Your task to perform on an android device: Open the calendar app, open the side menu, and click the "Day" option Image 0: 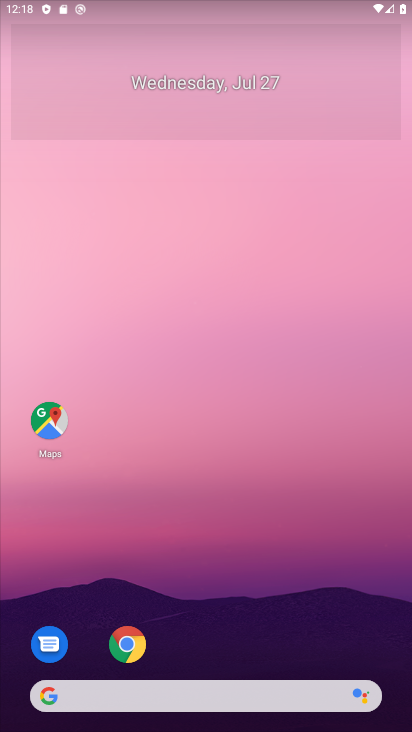
Step 0: drag from (204, 604) to (260, 205)
Your task to perform on an android device: Open the calendar app, open the side menu, and click the "Day" option Image 1: 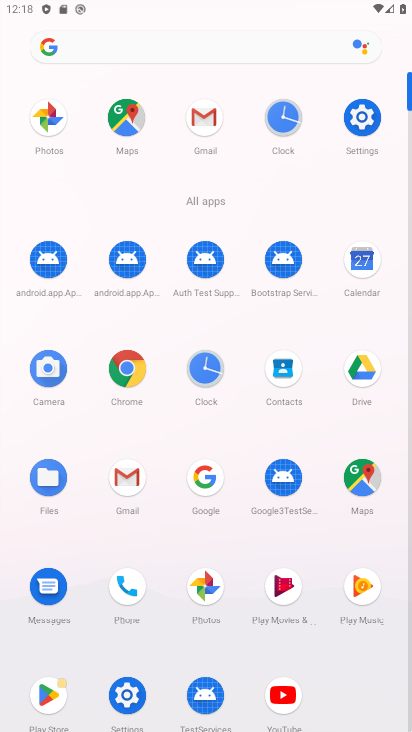
Step 1: click (374, 260)
Your task to perform on an android device: Open the calendar app, open the side menu, and click the "Day" option Image 2: 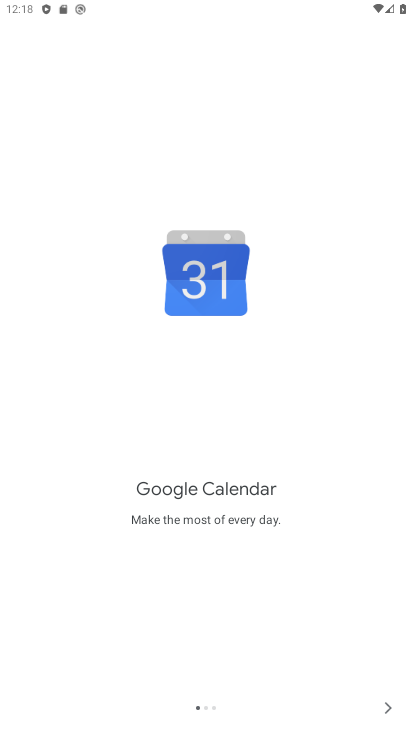
Step 2: click (388, 702)
Your task to perform on an android device: Open the calendar app, open the side menu, and click the "Day" option Image 3: 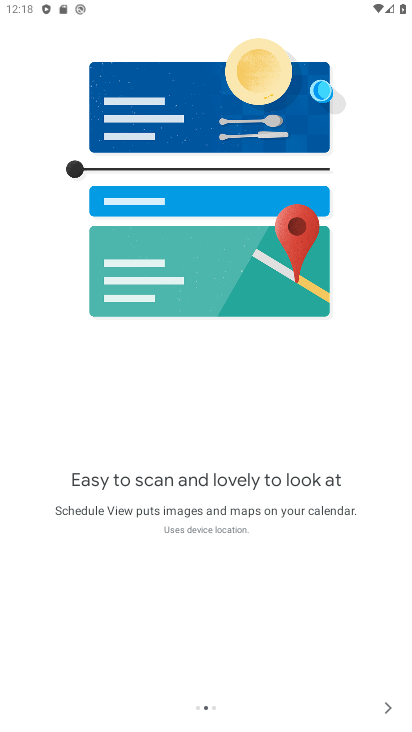
Step 3: click (387, 705)
Your task to perform on an android device: Open the calendar app, open the side menu, and click the "Day" option Image 4: 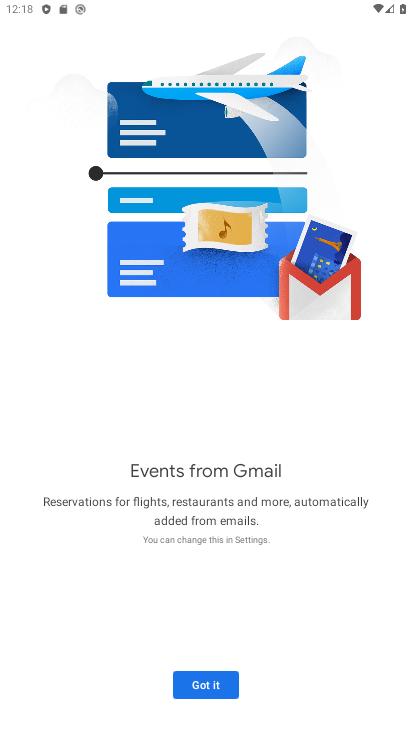
Step 4: click (199, 685)
Your task to perform on an android device: Open the calendar app, open the side menu, and click the "Day" option Image 5: 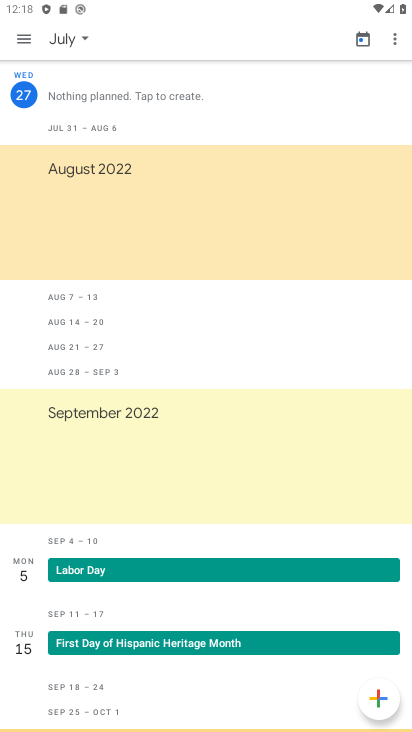
Step 5: click (35, 39)
Your task to perform on an android device: Open the calendar app, open the side menu, and click the "Day" option Image 6: 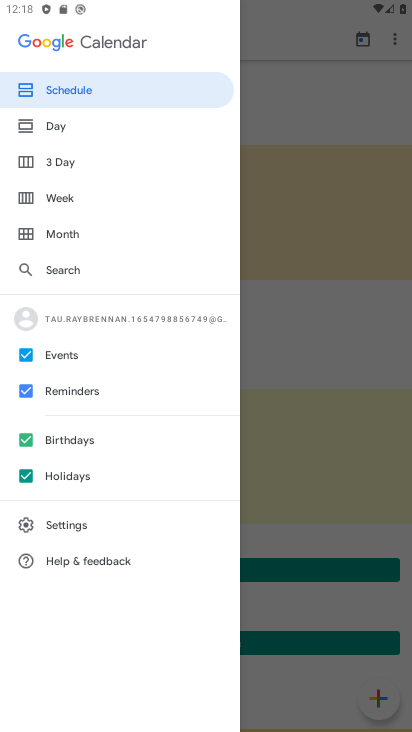
Step 6: click (62, 130)
Your task to perform on an android device: Open the calendar app, open the side menu, and click the "Day" option Image 7: 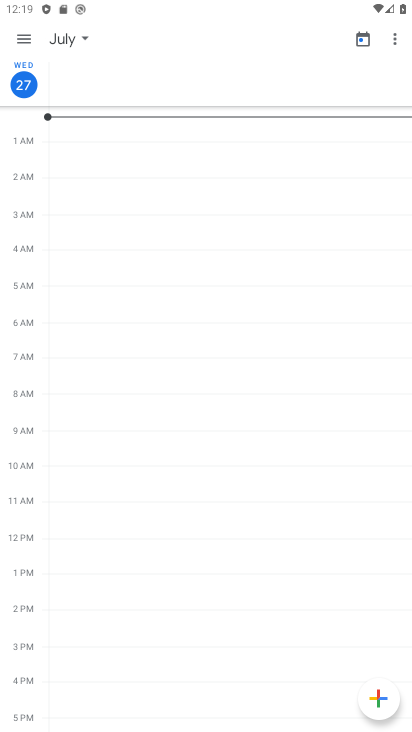
Step 7: task complete